Your task to perform on an android device: clear all cookies in the chrome app Image 0: 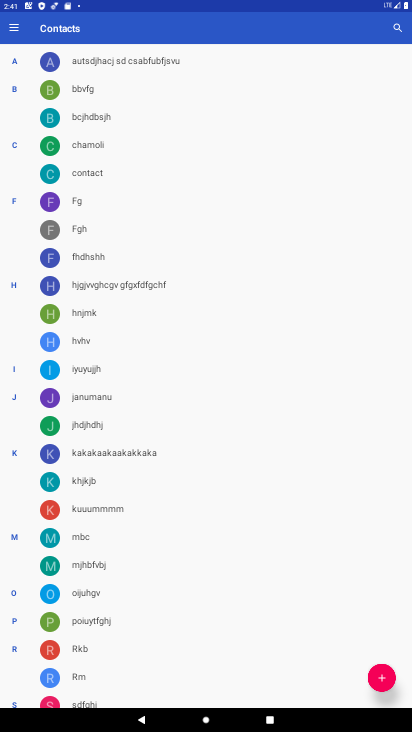
Step 0: press home button
Your task to perform on an android device: clear all cookies in the chrome app Image 1: 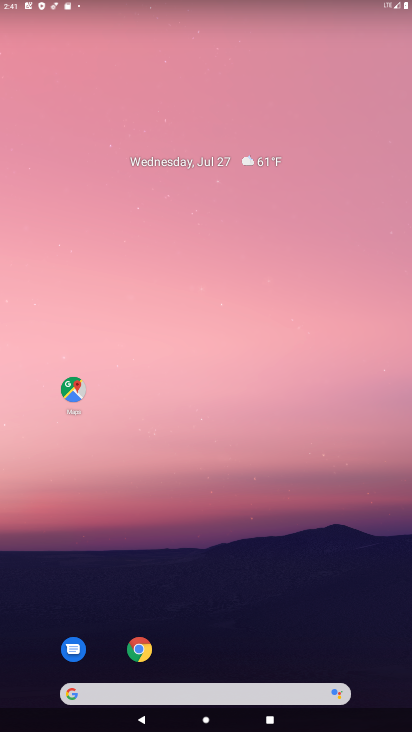
Step 1: click (130, 666)
Your task to perform on an android device: clear all cookies in the chrome app Image 2: 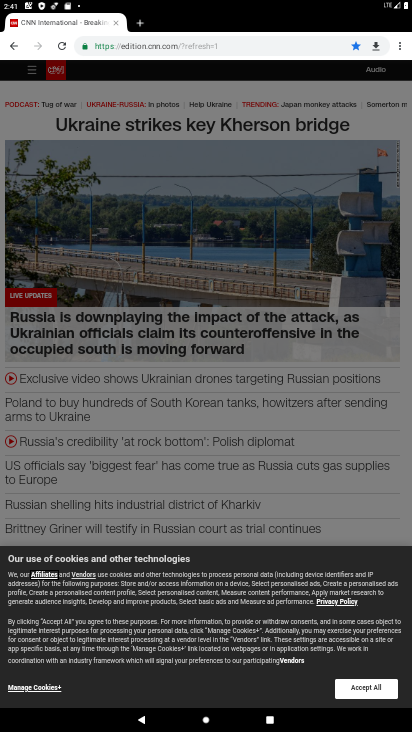
Step 2: click (401, 42)
Your task to perform on an android device: clear all cookies in the chrome app Image 3: 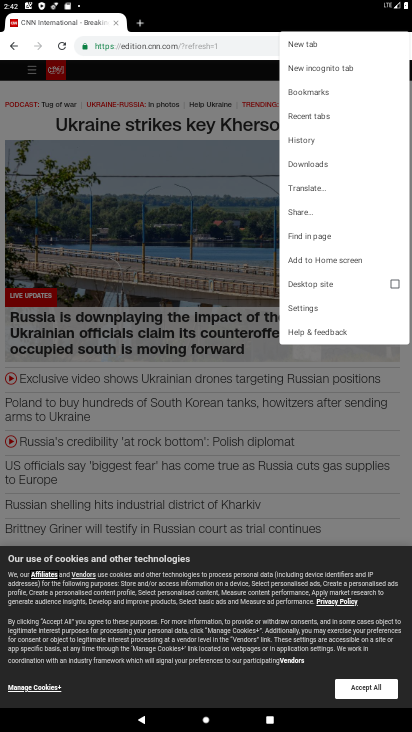
Step 3: click (291, 139)
Your task to perform on an android device: clear all cookies in the chrome app Image 4: 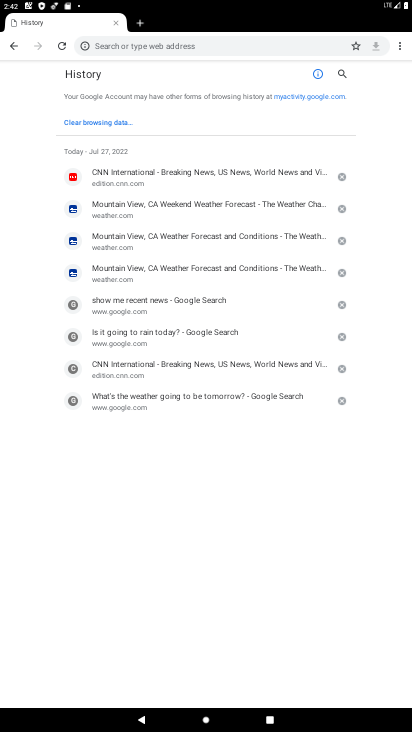
Step 4: click (92, 122)
Your task to perform on an android device: clear all cookies in the chrome app Image 5: 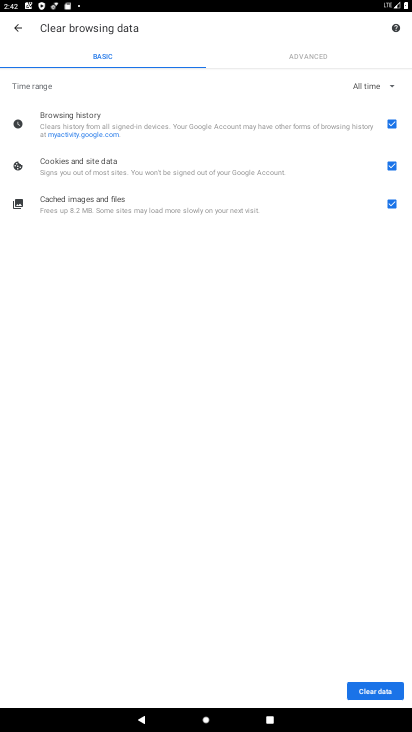
Step 5: click (393, 206)
Your task to perform on an android device: clear all cookies in the chrome app Image 6: 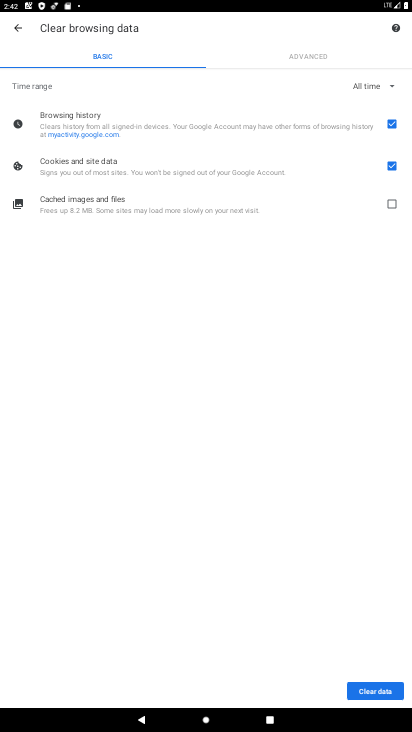
Step 6: click (391, 123)
Your task to perform on an android device: clear all cookies in the chrome app Image 7: 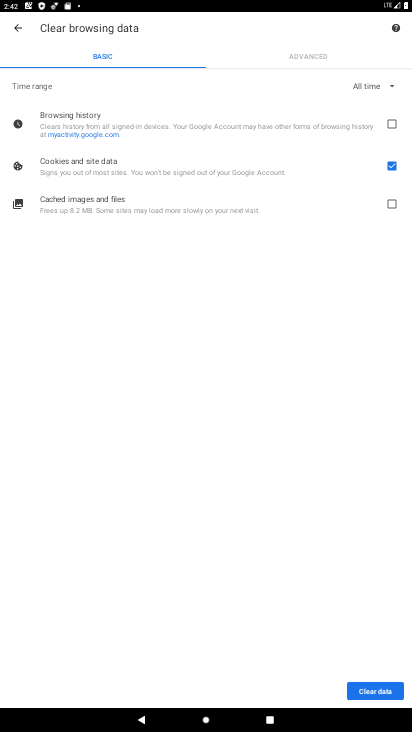
Step 7: click (362, 692)
Your task to perform on an android device: clear all cookies in the chrome app Image 8: 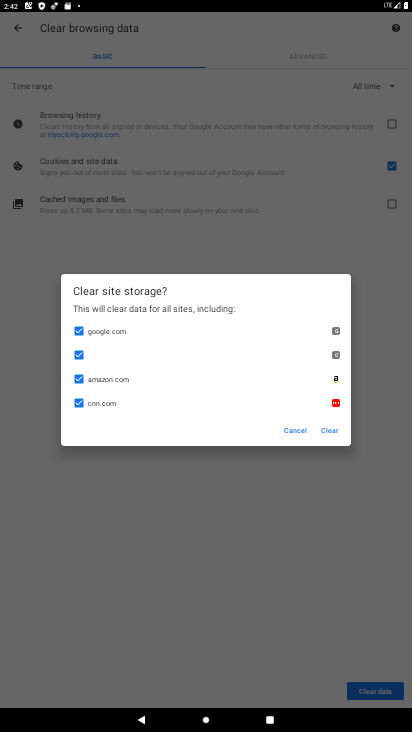
Step 8: click (327, 425)
Your task to perform on an android device: clear all cookies in the chrome app Image 9: 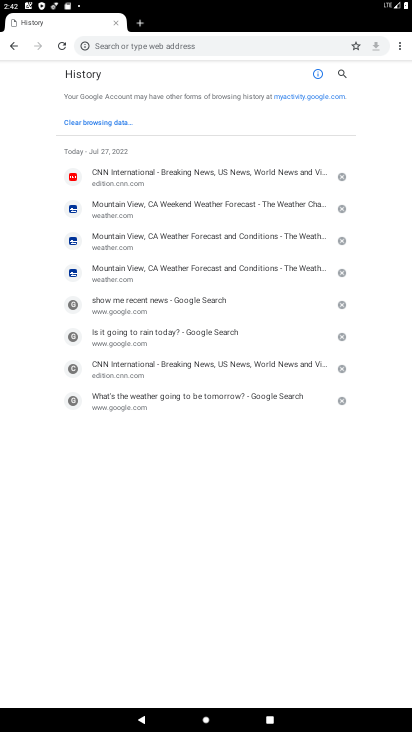
Step 9: task complete